Your task to perform on an android device: turn off translation in the chrome app Image 0: 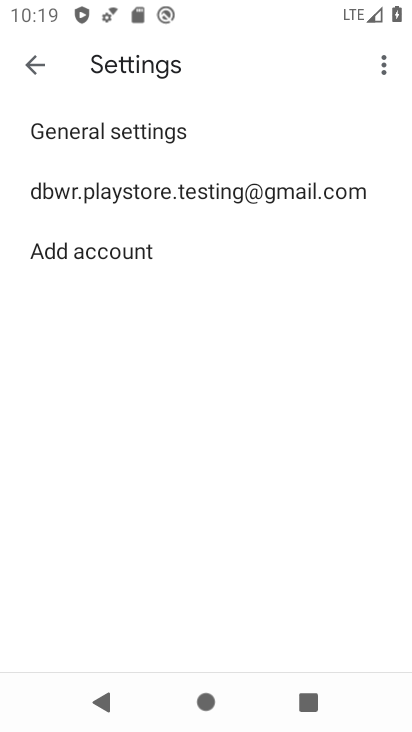
Step 0: press home button
Your task to perform on an android device: turn off translation in the chrome app Image 1: 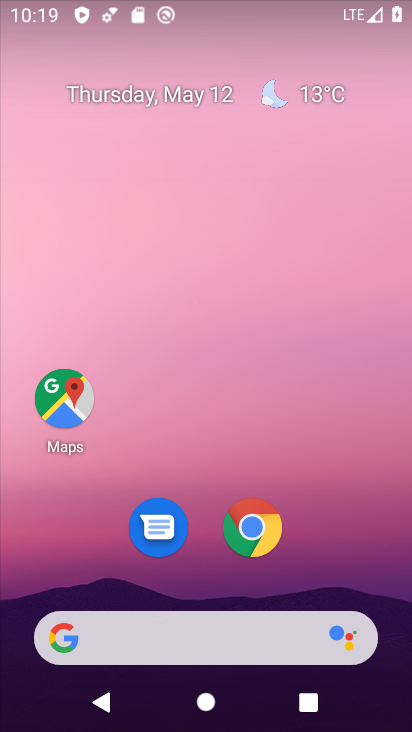
Step 1: drag from (326, 554) to (340, 206)
Your task to perform on an android device: turn off translation in the chrome app Image 2: 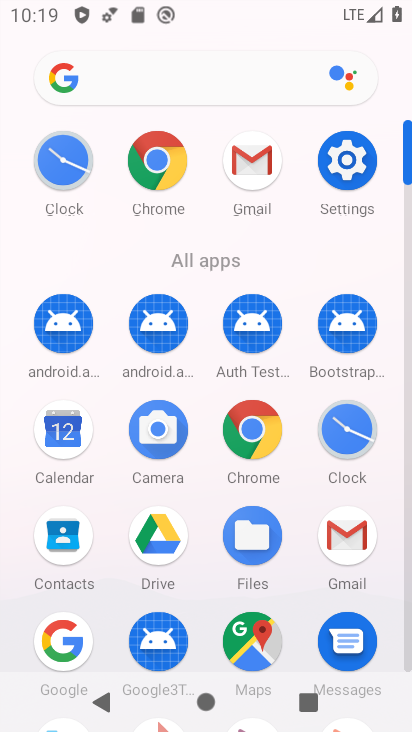
Step 2: click (155, 169)
Your task to perform on an android device: turn off translation in the chrome app Image 3: 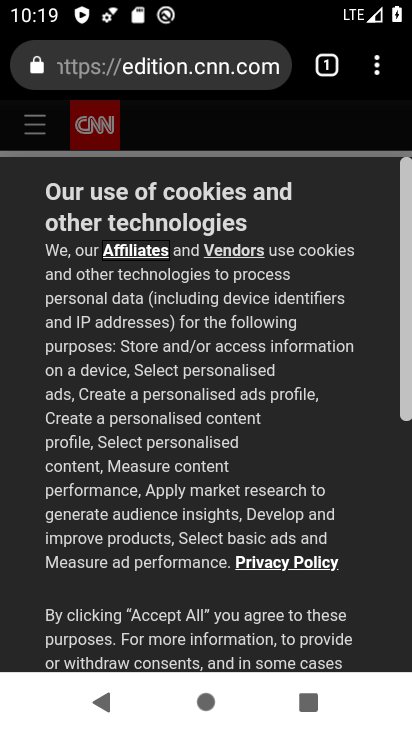
Step 3: click (378, 69)
Your task to perform on an android device: turn off translation in the chrome app Image 4: 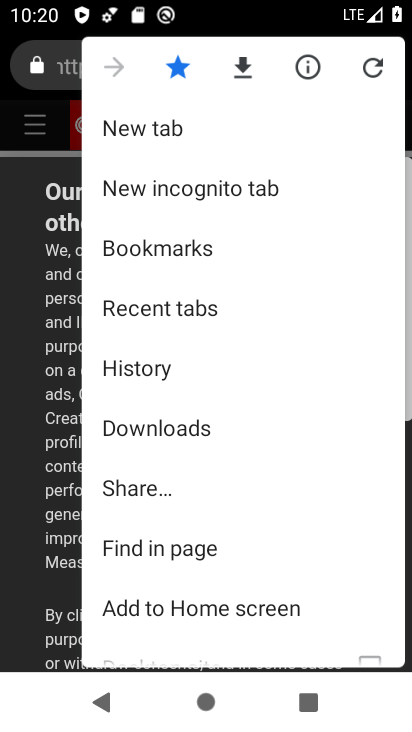
Step 4: drag from (159, 342) to (185, 183)
Your task to perform on an android device: turn off translation in the chrome app Image 5: 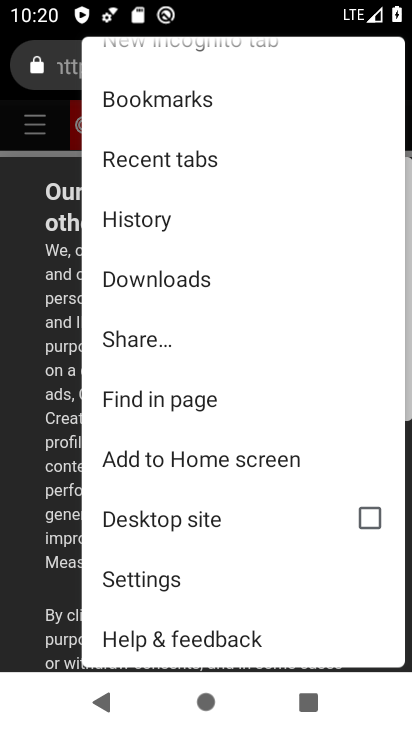
Step 5: click (143, 574)
Your task to perform on an android device: turn off translation in the chrome app Image 6: 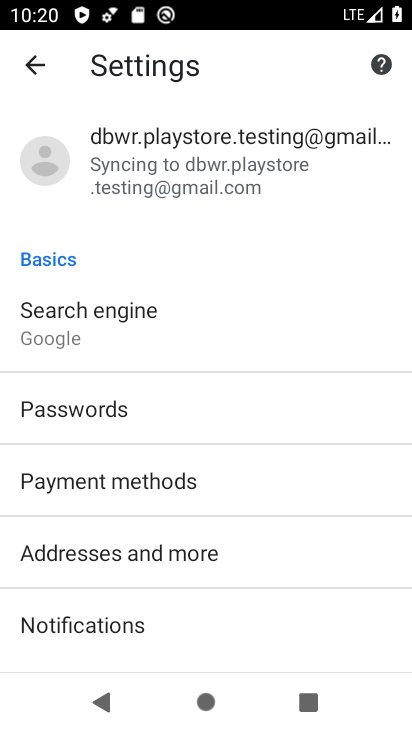
Step 6: drag from (75, 579) to (119, 363)
Your task to perform on an android device: turn off translation in the chrome app Image 7: 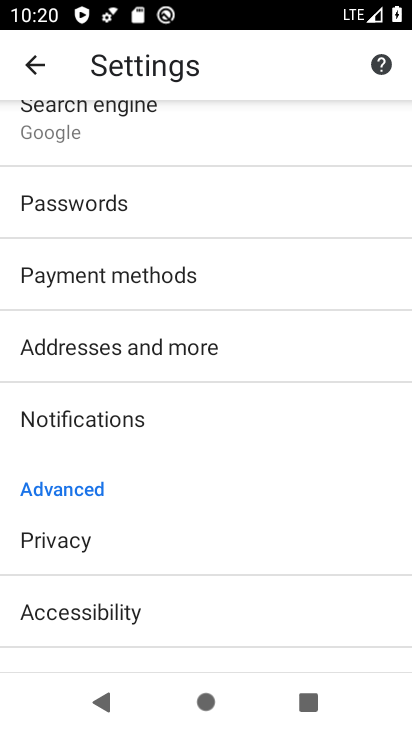
Step 7: drag from (81, 461) to (126, 266)
Your task to perform on an android device: turn off translation in the chrome app Image 8: 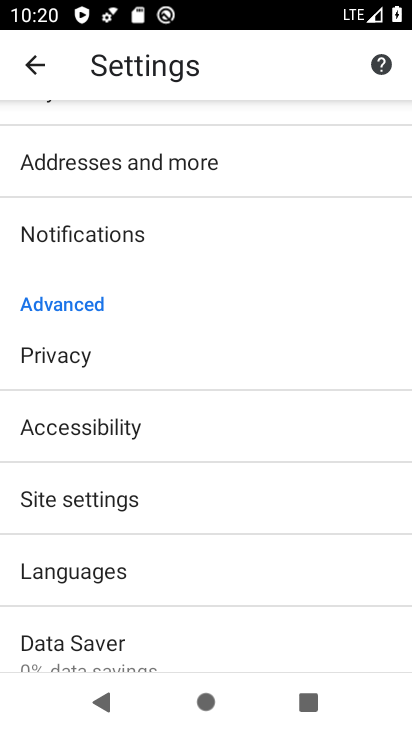
Step 8: click (86, 568)
Your task to perform on an android device: turn off translation in the chrome app Image 9: 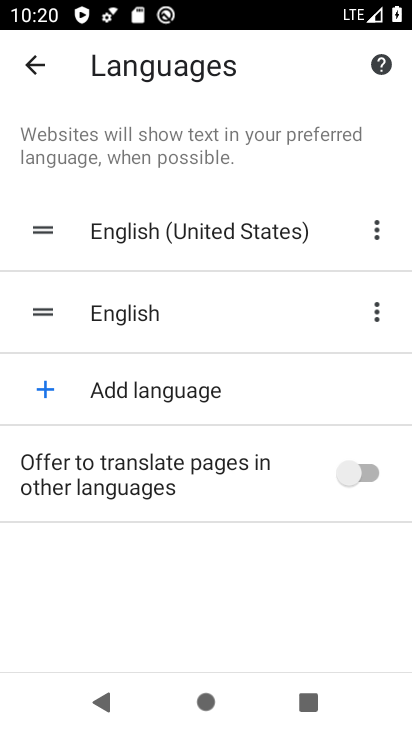
Step 9: task complete